Your task to perform on an android device: turn on bluetooth scan Image 0: 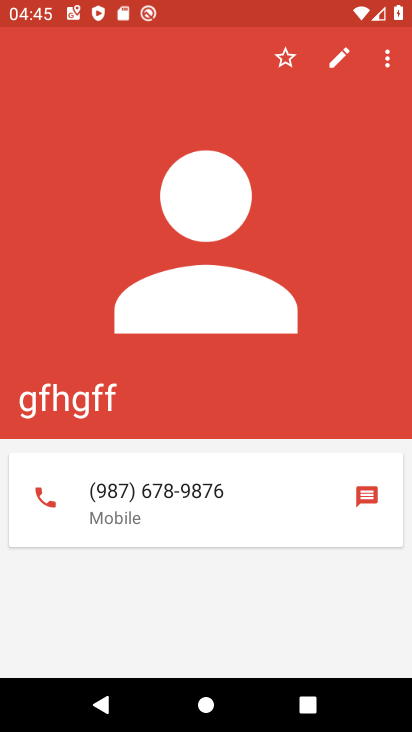
Step 0: press home button
Your task to perform on an android device: turn on bluetooth scan Image 1: 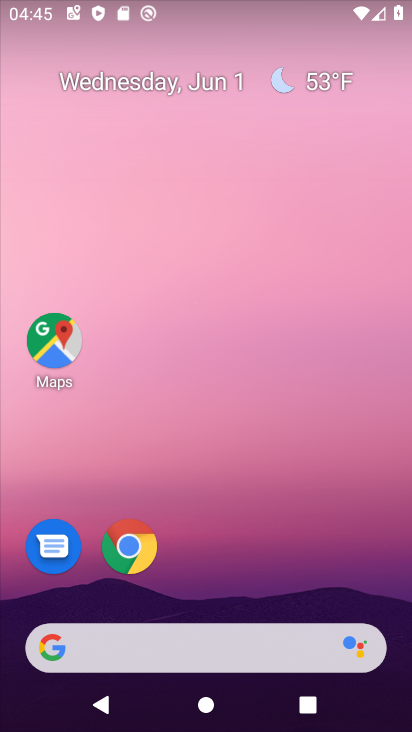
Step 1: drag from (257, 543) to (227, 153)
Your task to perform on an android device: turn on bluetooth scan Image 2: 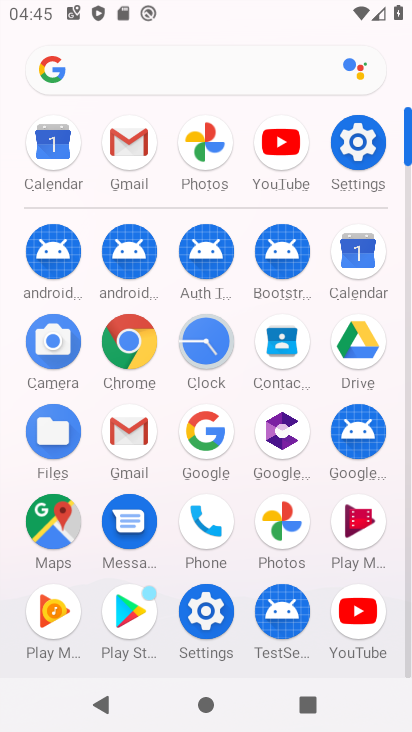
Step 2: click (356, 146)
Your task to perform on an android device: turn on bluetooth scan Image 3: 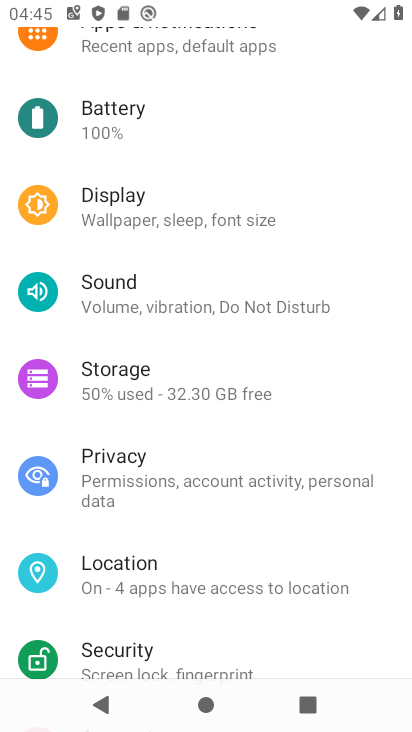
Step 3: drag from (188, 164) to (127, 511)
Your task to perform on an android device: turn on bluetooth scan Image 4: 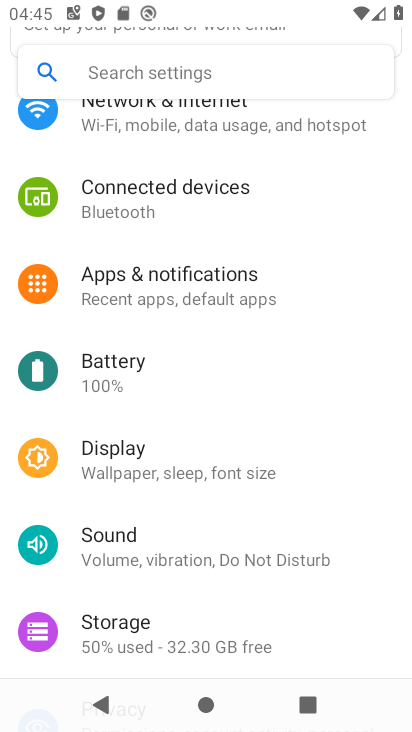
Step 4: drag from (192, 513) to (178, 271)
Your task to perform on an android device: turn on bluetooth scan Image 5: 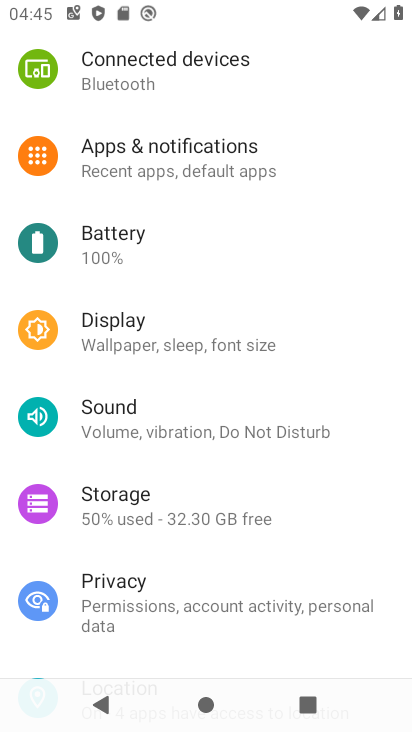
Step 5: drag from (193, 536) to (192, 238)
Your task to perform on an android device: turn on bluetooth scan Image 6: 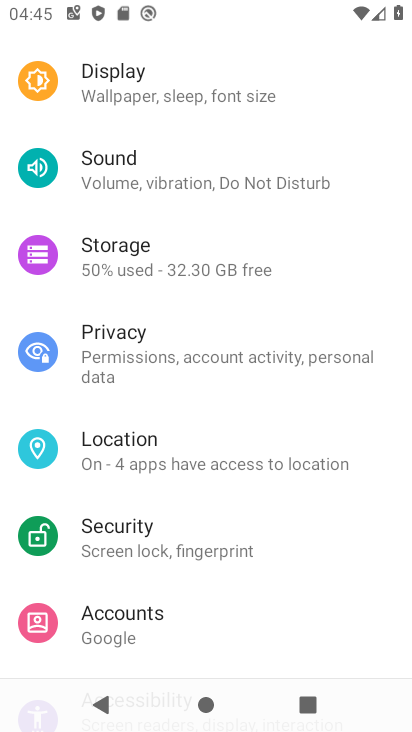
Step 6: click (125, 441)
Your task to perform on an android device: turn on bluetooth scan Image 7: 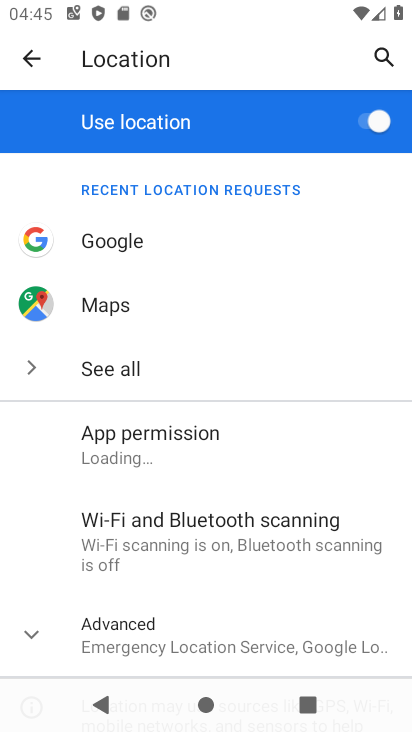
Step 7: drag from (200, 576) to (193, 375)
Your task to perform on an android device: turn on bluetooth scan Image 8: 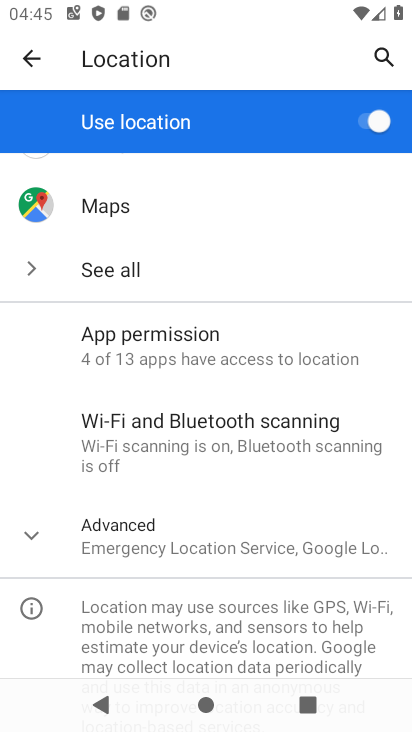
Step 8: click (226, 412)
Your task to perform on an android device: turn on bluetooth scan Image 9: 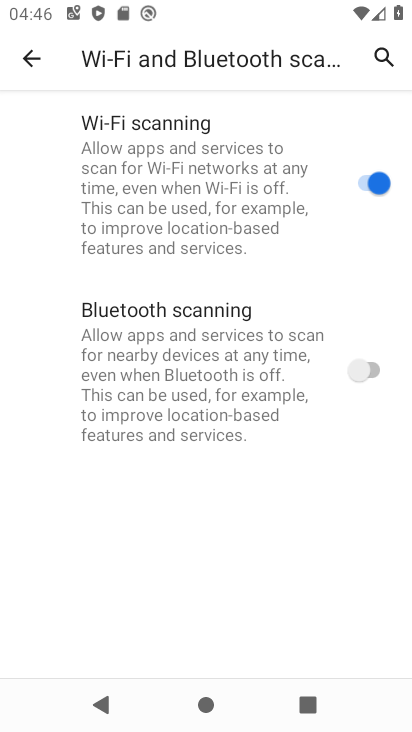
Step 9: click (370, 375)
Your task to perform on an android device: turn on bluetooth scan Image 10: 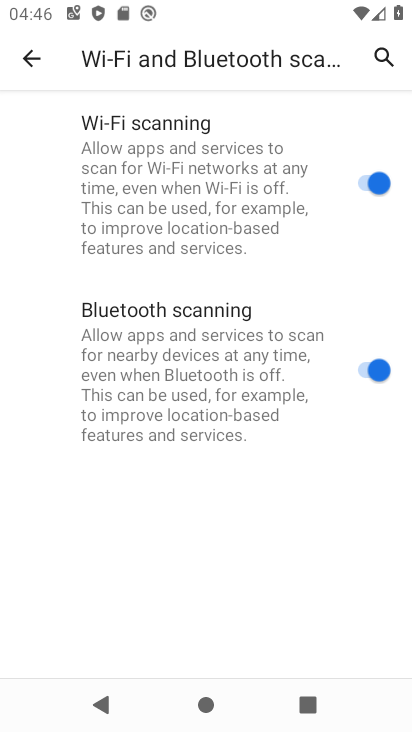
Step 10: task complete